Your task to perform on an android device: turn off notifications in google photos Image 0: 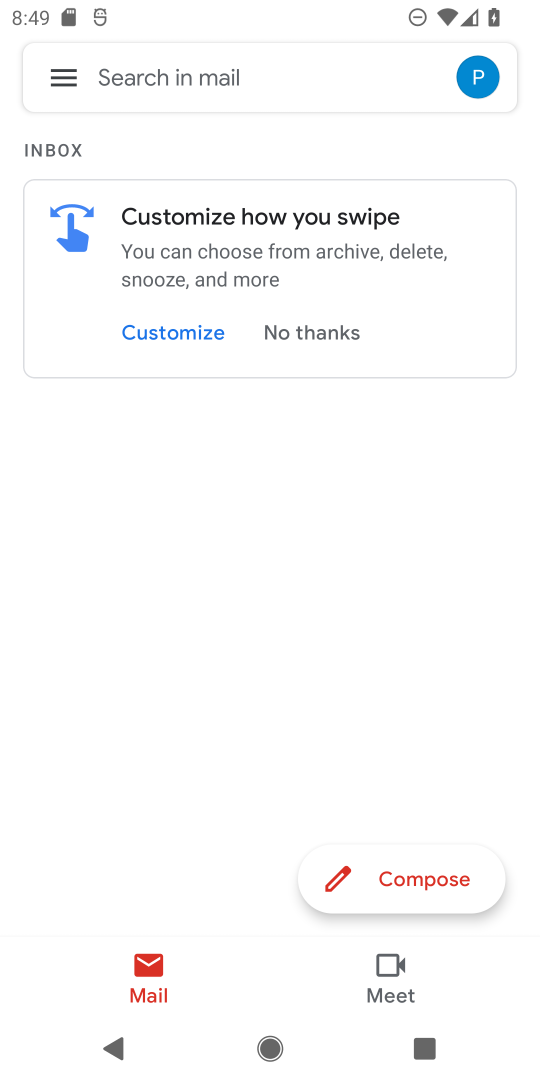
Step 0: press home button
Your task to perform on an android device: turn off notifications in google photos Image 1: 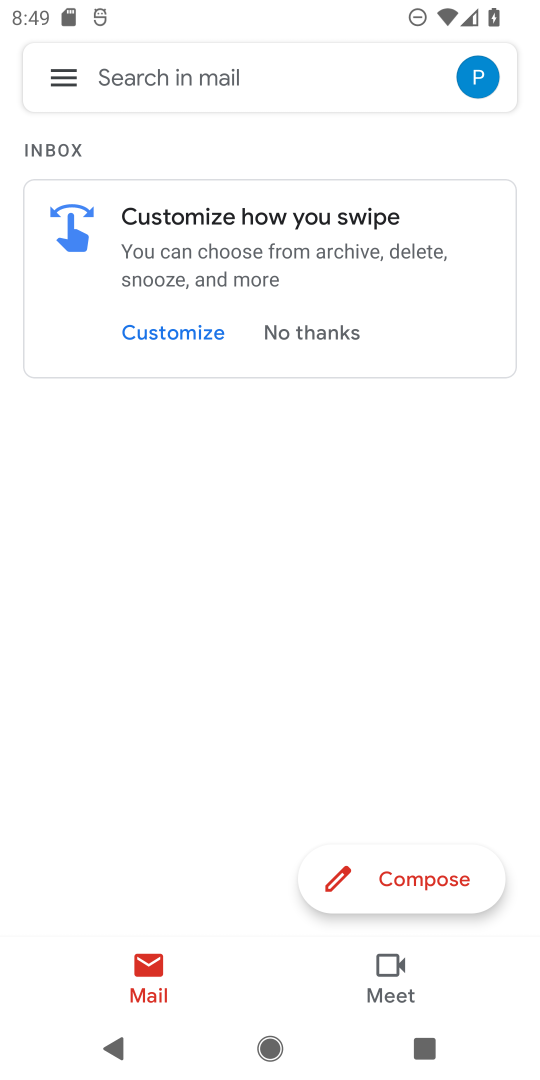
Step 1: press home button
Your task to perform on an android device: turn off notifications in google photos Image 2: 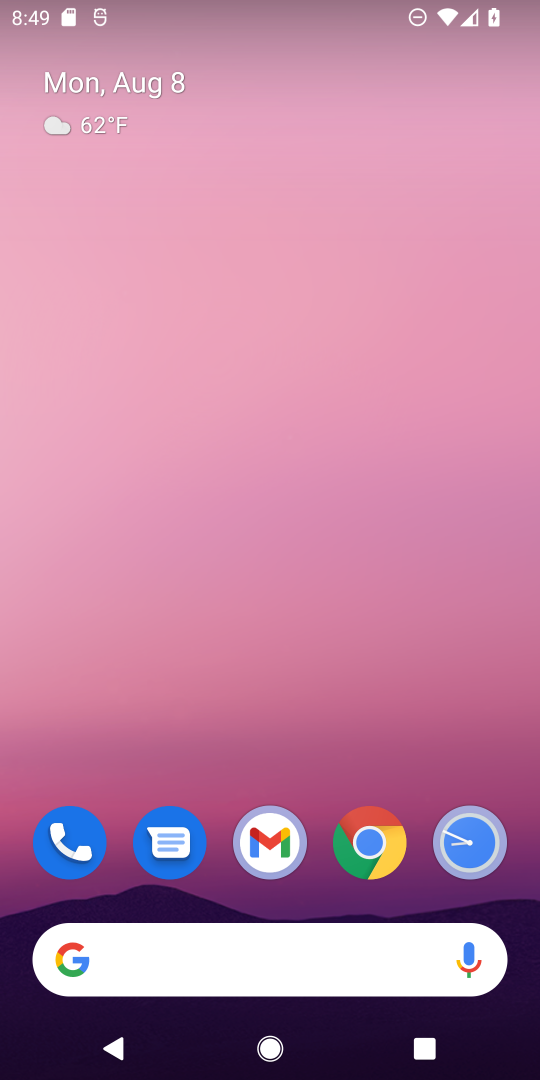
Step 2: drag from (311, 731) to (382, 1)
Your task to perform on an android device: turn off notifications in google photos Image 3: 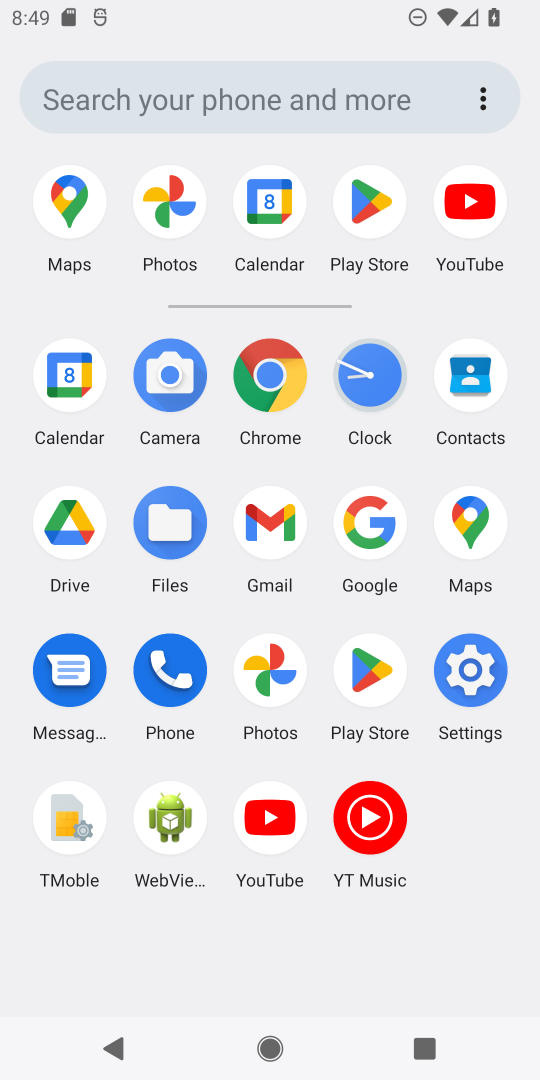
Step 3: click (278, 676)
Your task to perform on an android device: turn off notifications in google photos Image 4: 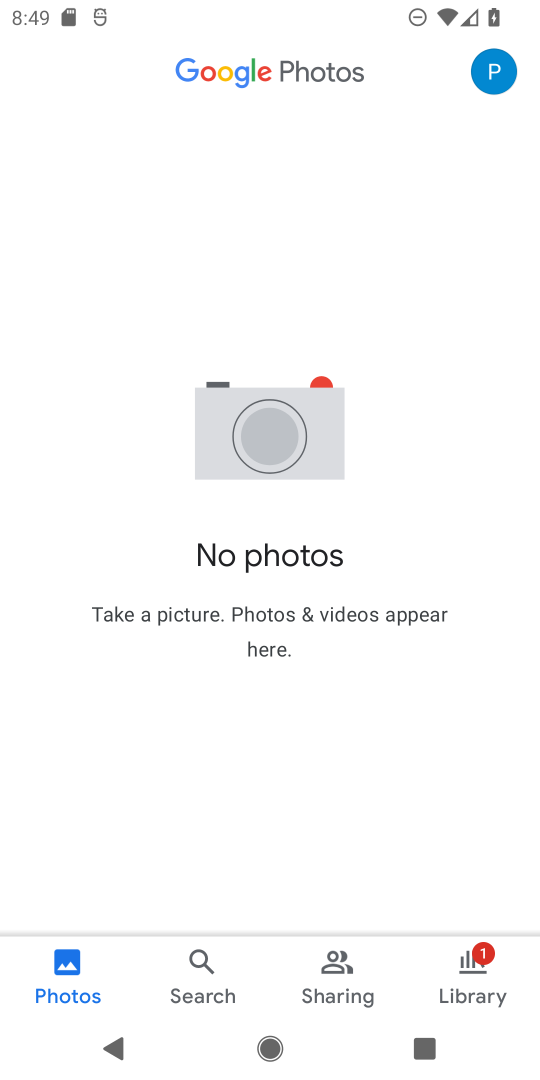
Step 4: click (493, 74)
Your task to perform on an android device: turn off notifications in google photos Image 5: 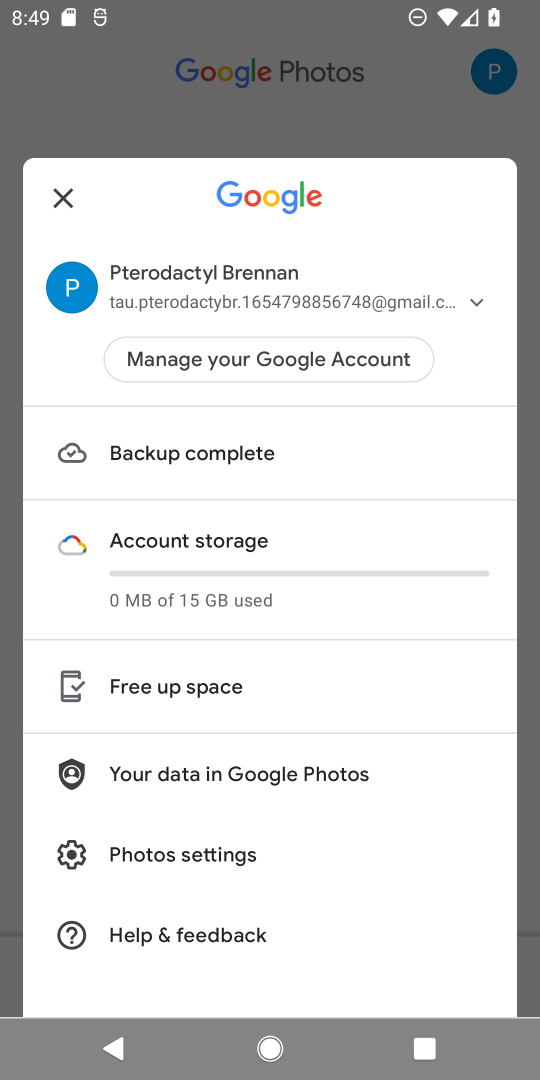
Step 5: click (199, 853)
Your task to perform on an android device: turn off notifications in google photos Image 6: 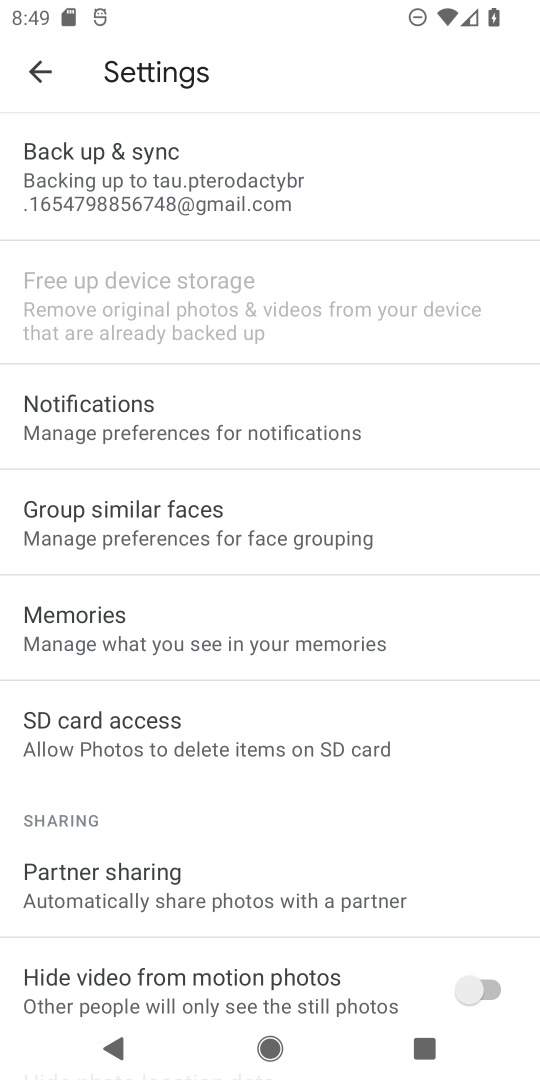
Step 6: click (245, 414)
Your task to perform on an android device: turn off notifications in google photos Image 7: 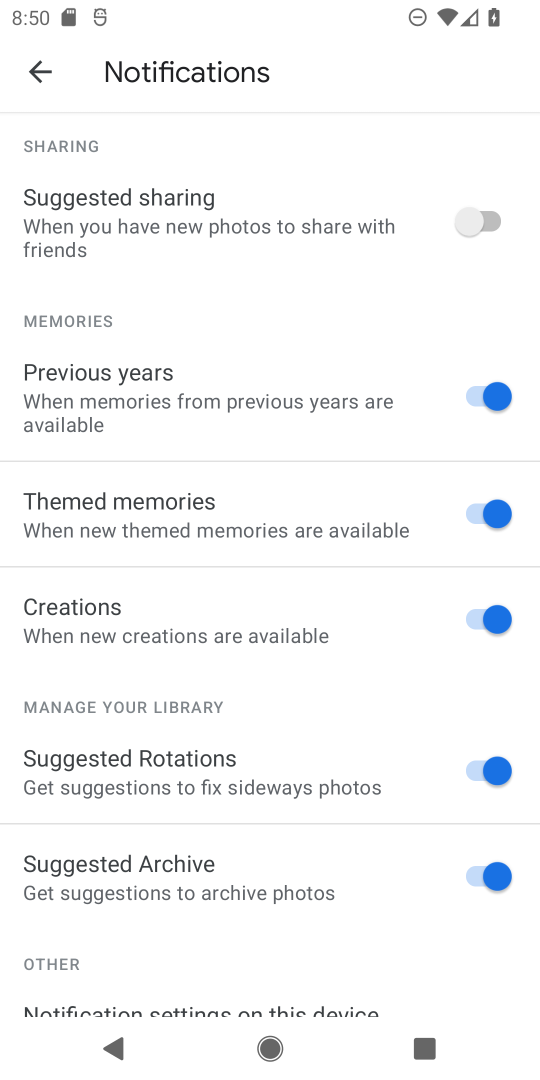
Step 7: drag from (244, 791) to (295, 194)
Your task to perform on an android device: turn off notifications in google photos Image 8: 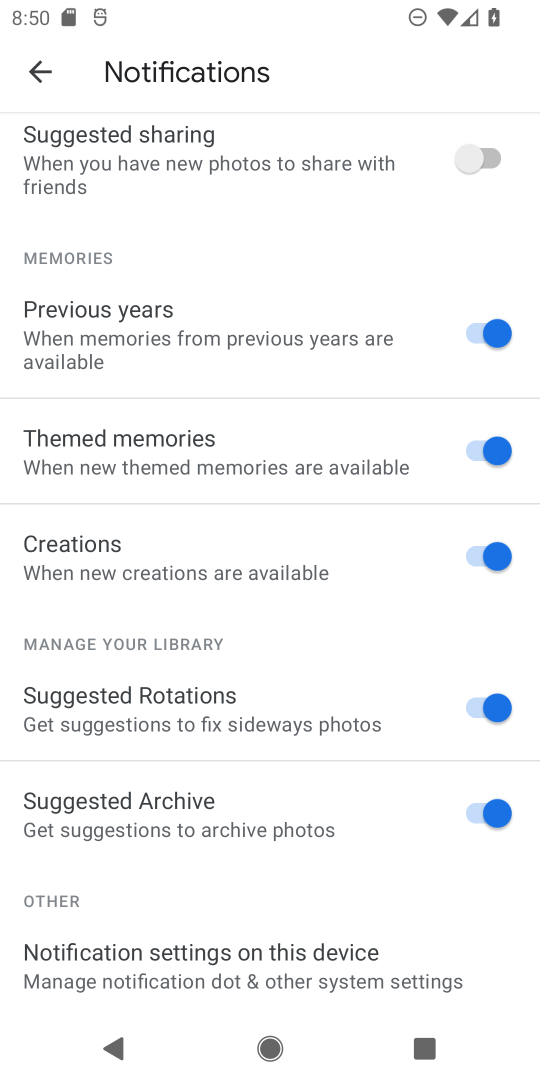
Step 8: drag from (280, 275) to (248, 914)
Your task to perform on an android device: turn off notifications in google photos Image 9: 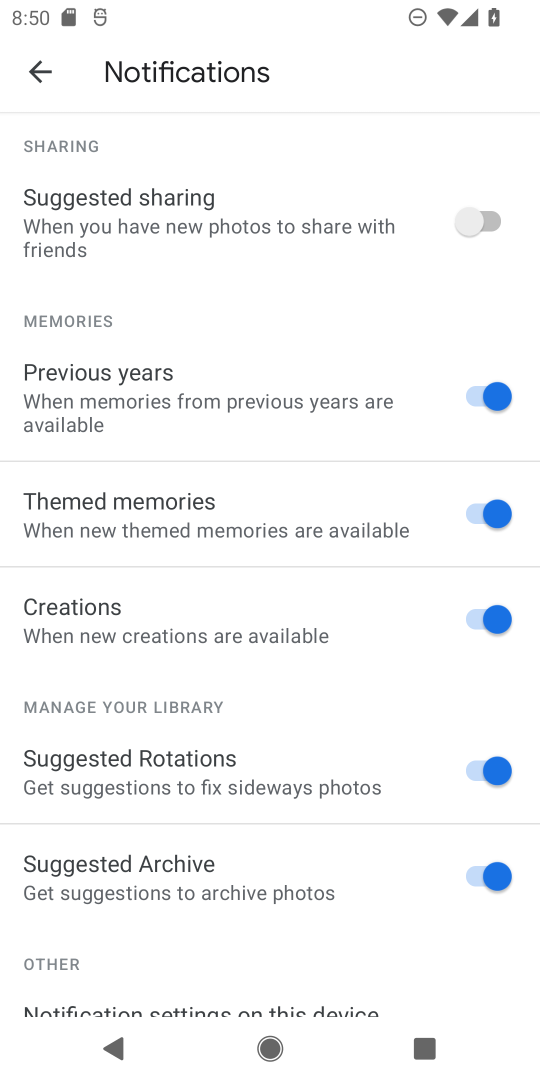
Step 9: click (49, 68)
Your task to perform on an android device: turn off notifications in google photos Image 10: 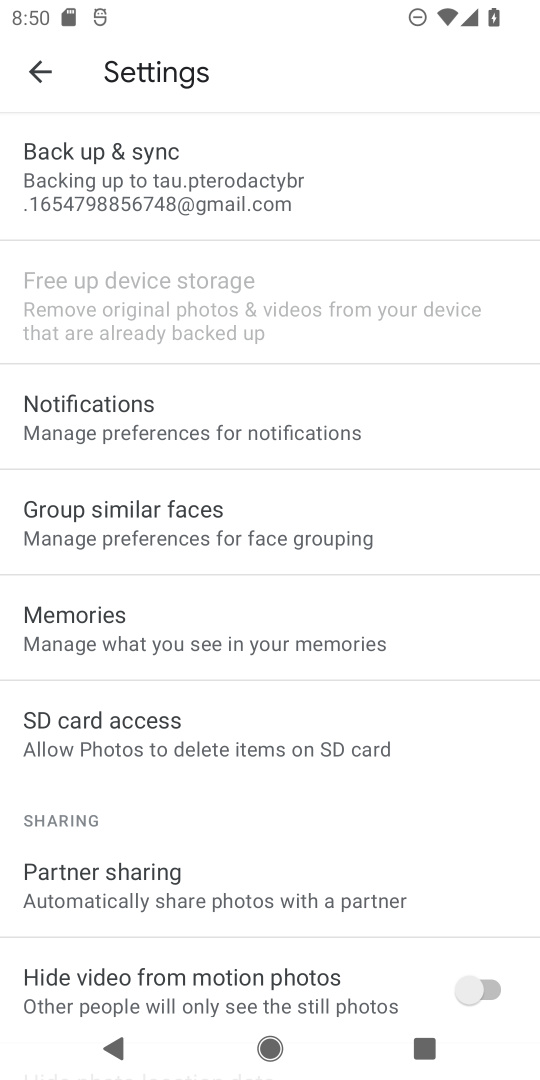
Step 10: click (196, 434)
Your task to perform on an android device: turn off notifications in google photos Image 11: 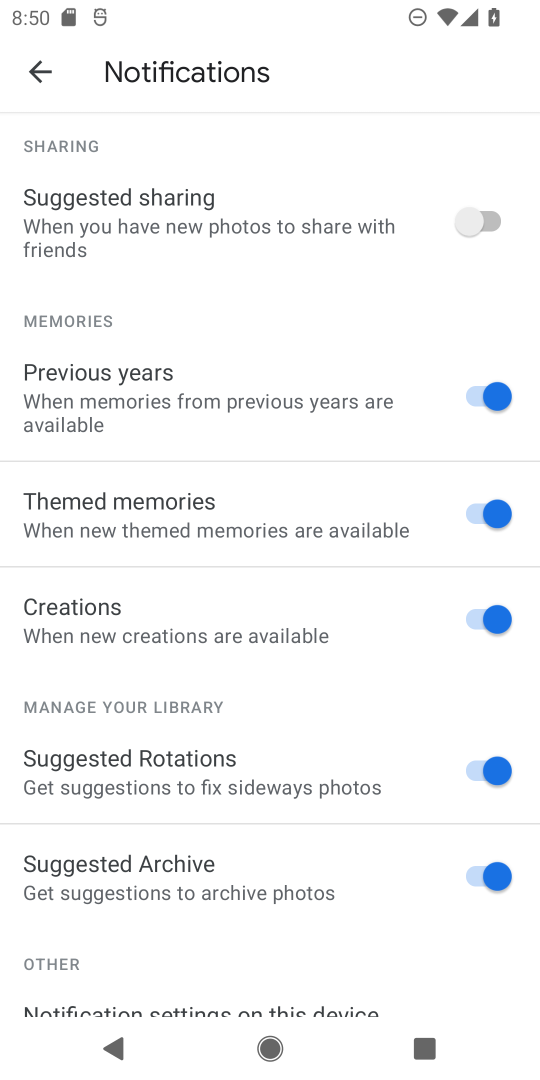
Step 11: click (490, 389)
Your task to perform on an android device: turn off notifications in google photos Image 12: 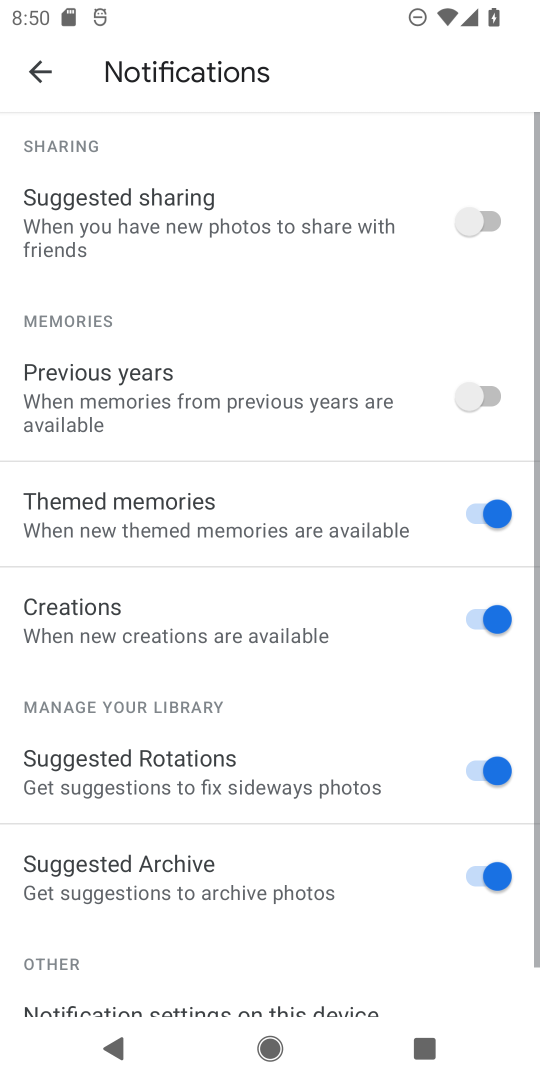
Step 12: click (494, 505)
Your task to perform on an android device: turn off notifications in google photos Image 13: 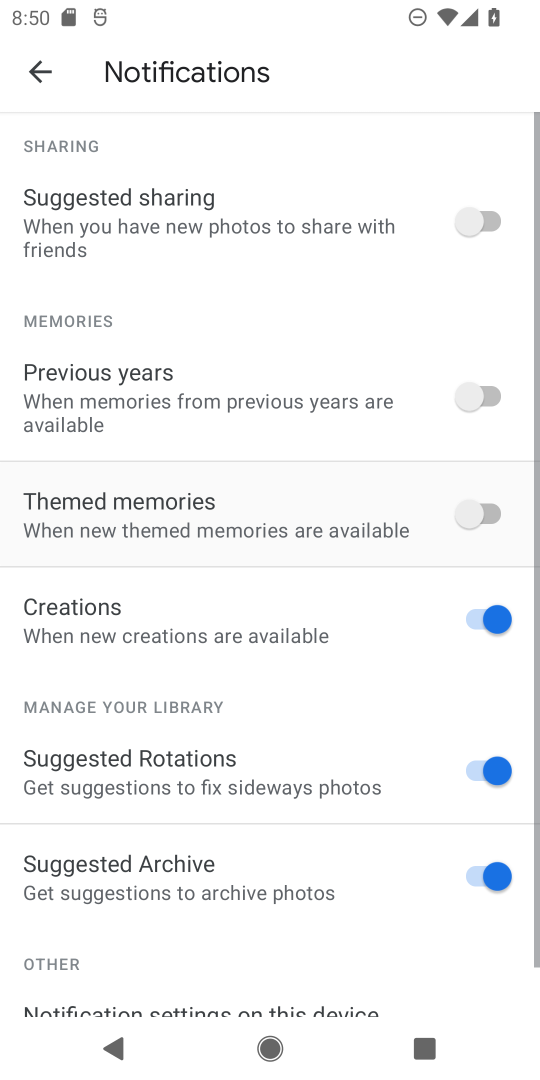
Step 13: click (494, 606)
Your task to perform on an android device: turn off notifications in google photos Image 14: 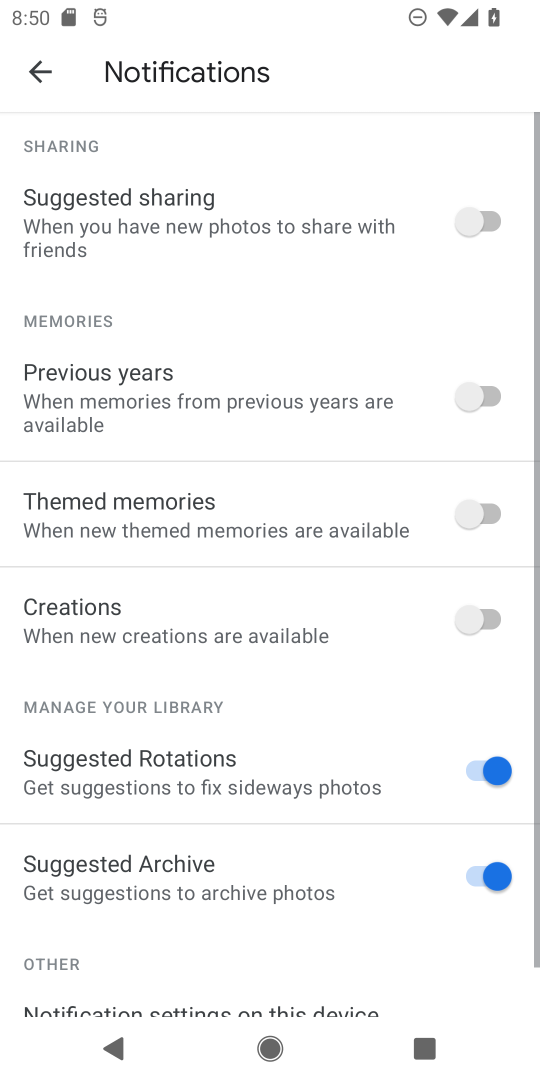
Step 14: click (500, 769)
Your task to perform on an android device: turn off notifications in google photos Image 15: 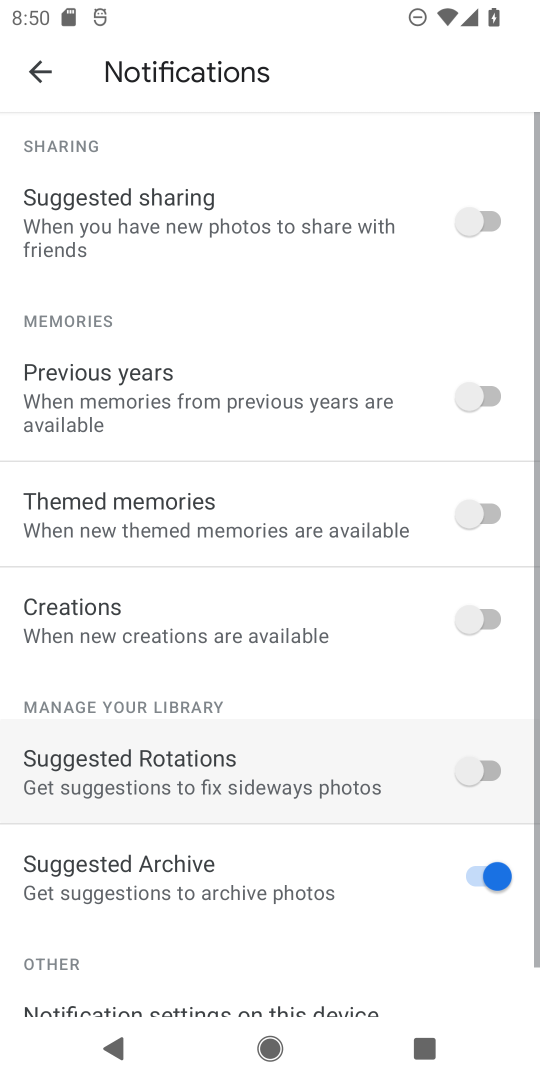
Step 15: click (495, 868)
Your task to perform on an android device: turn off notifications in google photos Image 16: 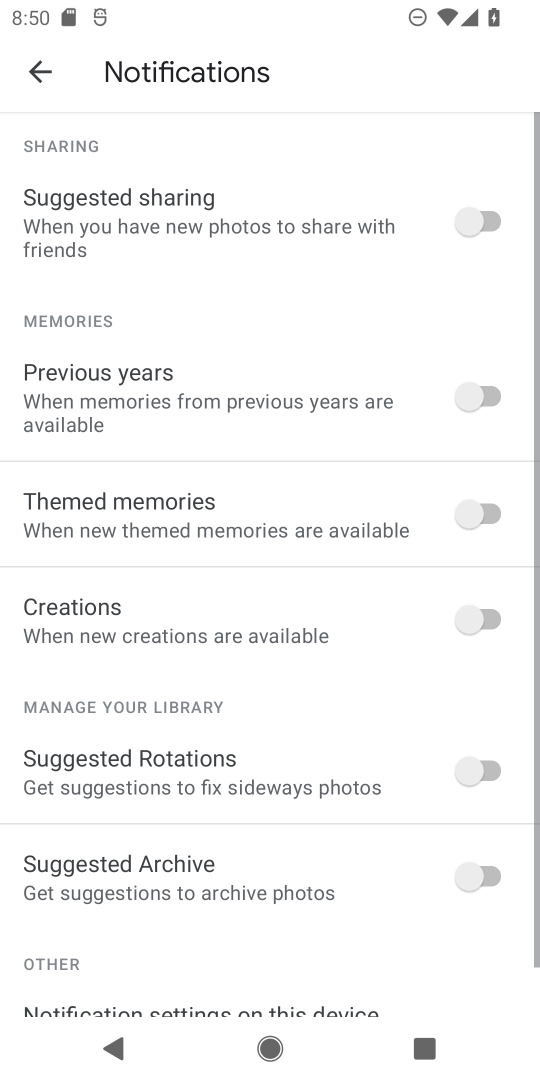
Step 16: drag from (267, 902) to (254, 379)
Your task to perform on an android device: turn off notifications in google photos Image 17: 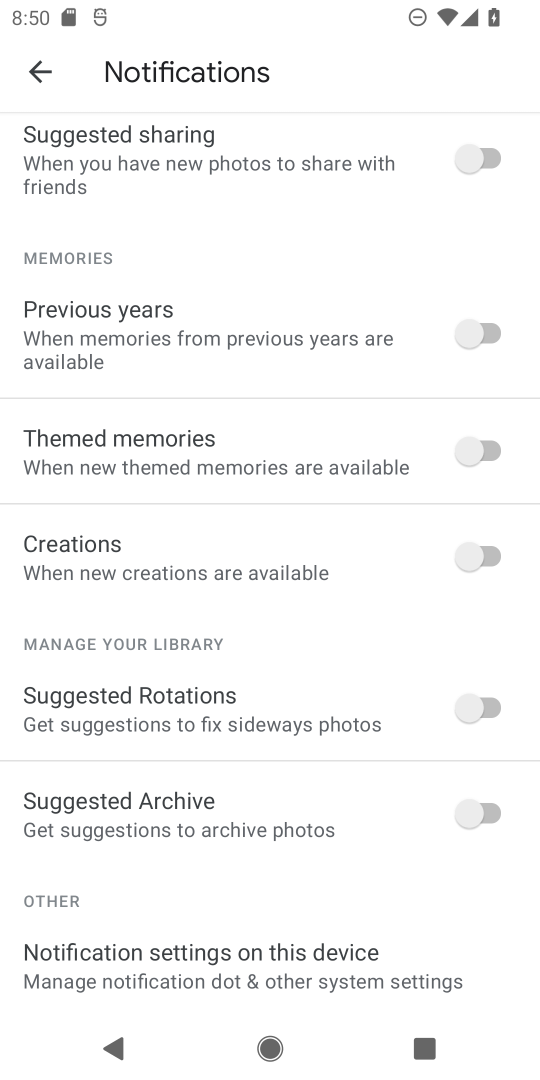
Step 17: click (228, 957)
Your task to perform on an android device: turn off notifications in google photos Image 18: 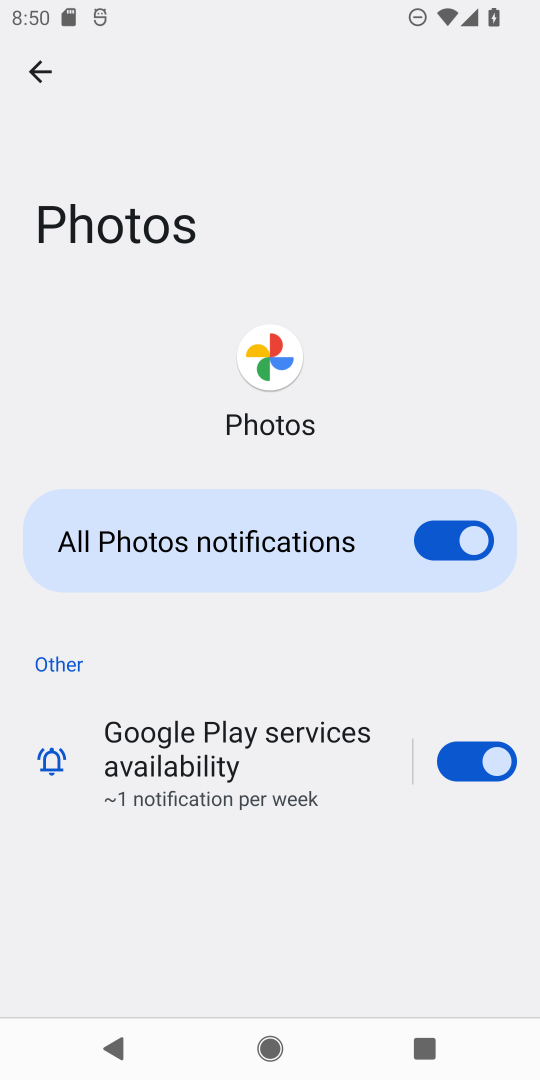
Step 18: click (459, 549)
Your task to perform on an android device: turn off notifications in google photos Image 19: 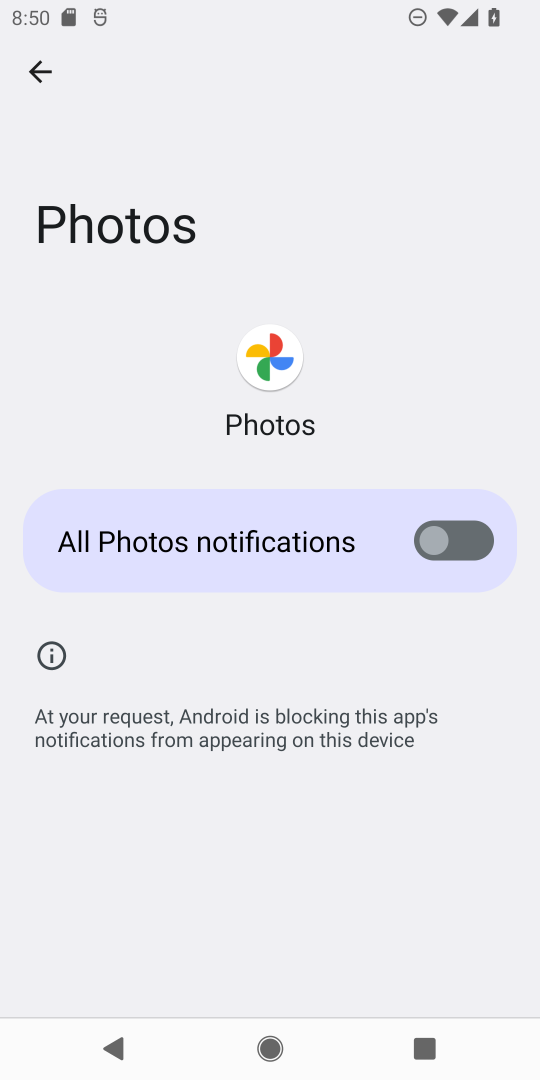
Step 19: click (45, 59)
Your task to perform on an android device: turn off notifications in google photos Image 20: 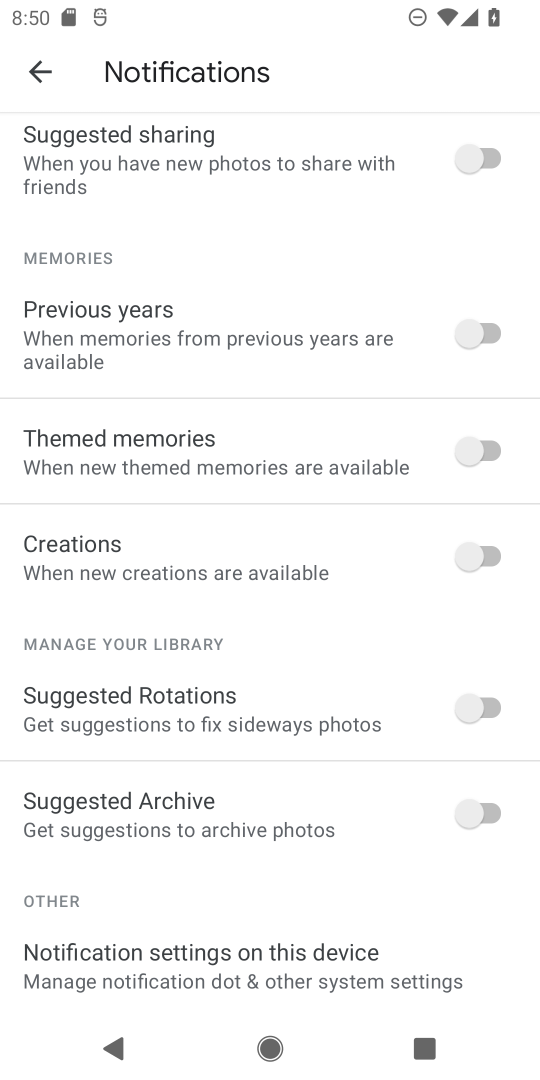
Step 20: task complete